Your task to perform on an android device: toggle notification dots Image 0: 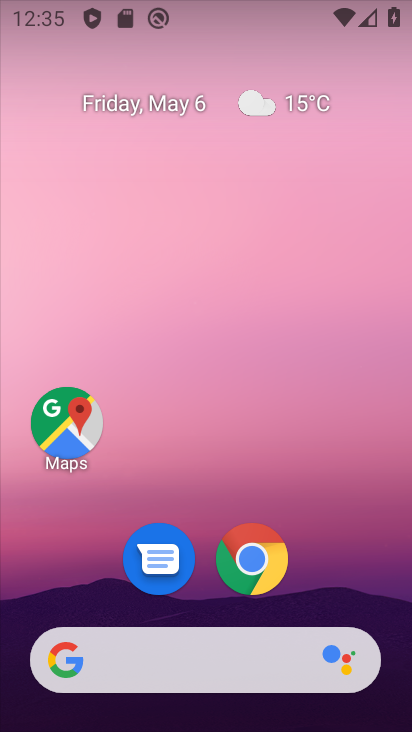
Step 0: drag from (206, 608) to (308, 54)
Your task to perform on an android device: toggle notification dots Image 1: 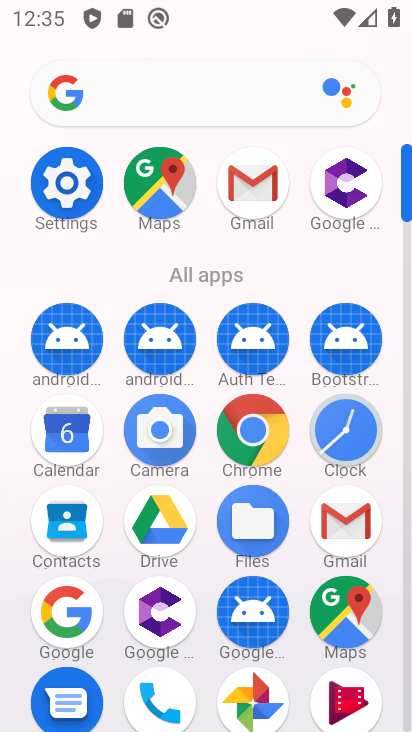
Step 1: click (56, 189)
Your task to perform on an android device: toggle notification dots Image 2: 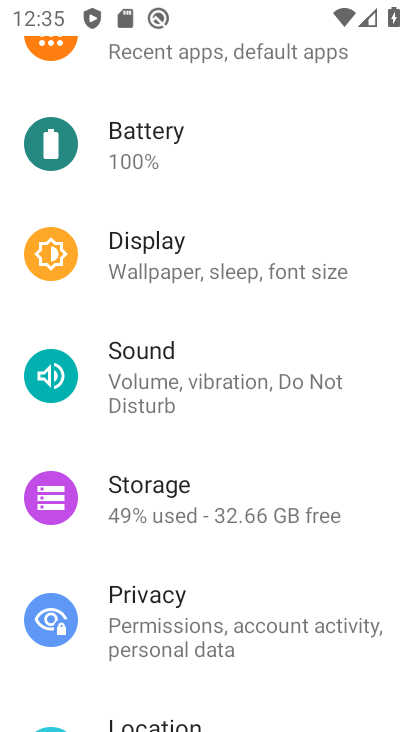
Step 2: drag from (214, 96) to (246, 522)
Your task to perform on an android device: toggle notification dots Image 3: 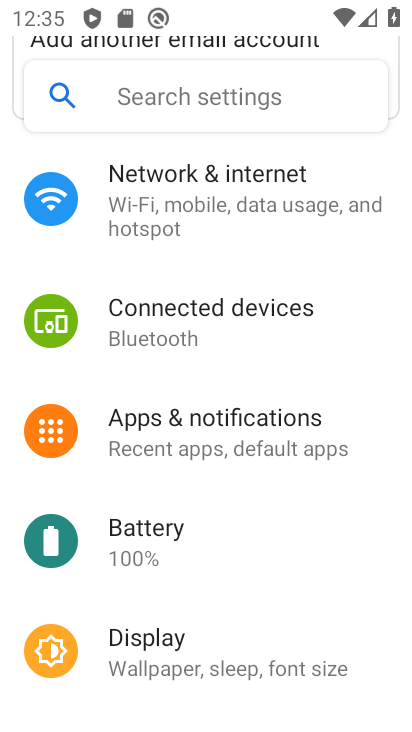
Step 3: drag from (257, 236) to (258, 345)
Your task to perform on an android device: toggle notification dots Image 4: 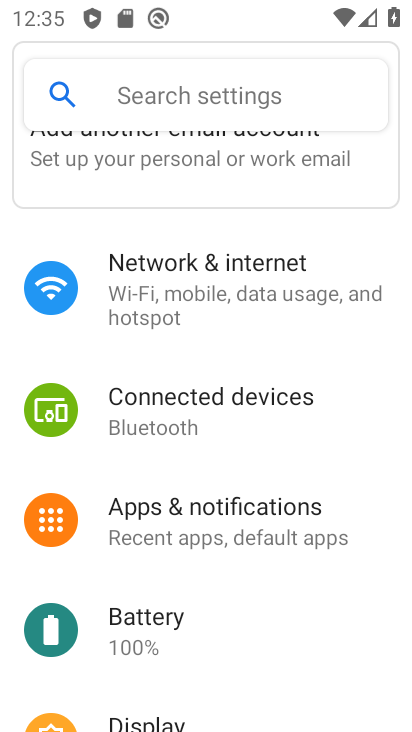
Step 4: click (234, 519)
Your task to perform on an android device: toggle notification dots Image 5: 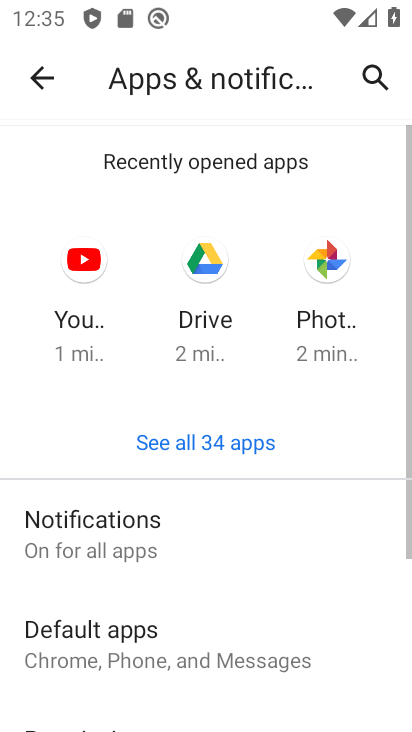
Step 5: drag from (210, 604) to (234, 219)
Your task to perform on an android device: toggle notification dots Image 6: 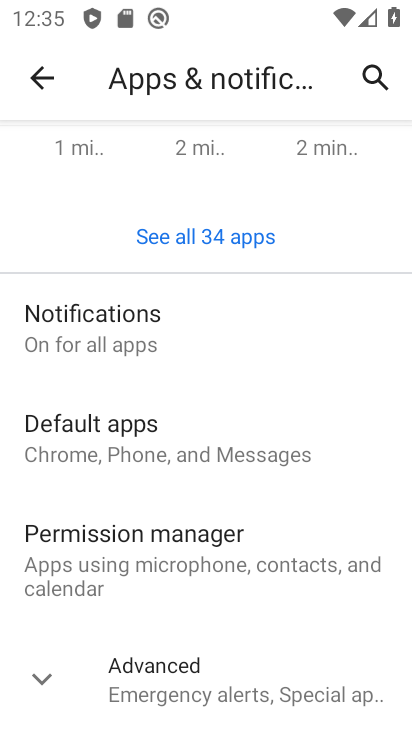
Step 6: click (125, 330)
Your task to perform on an android device: toggle notification dots Image 7: 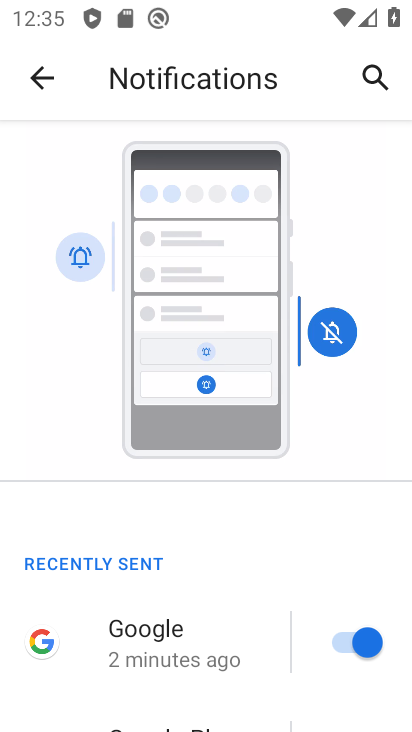
Step 7: drag from (256, 644) to (282, 185)
Your task to perform on an android device: toggle notification dots Image 8: 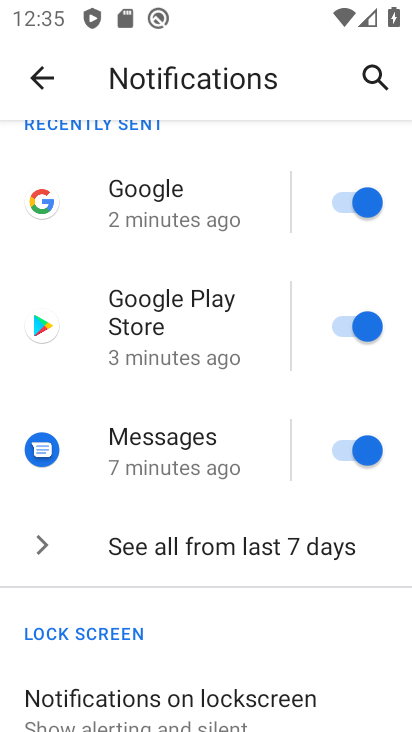
Step 8: drag from (135, 654) to (216, 285)
Your task to perform on an android device: toggle notification dots Image 9: 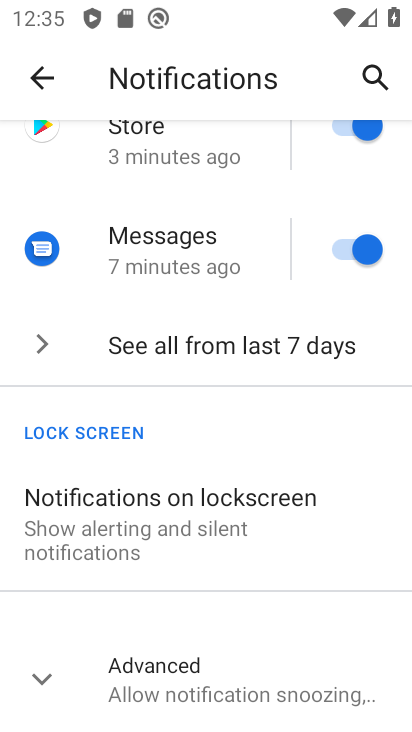
Step 9: click (131, 668)
Your task to perform on an android device: toggle notification dots Image 10: 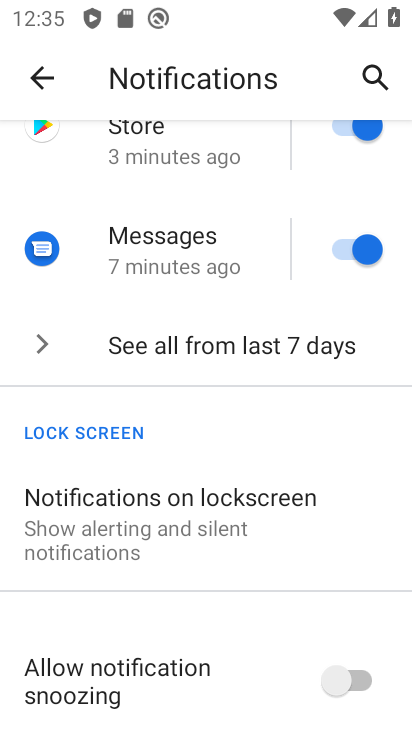
Step 10: drag from (131, 656) to (179, 334)
Your task to perform on an android device: toggle notification dots Image 11: 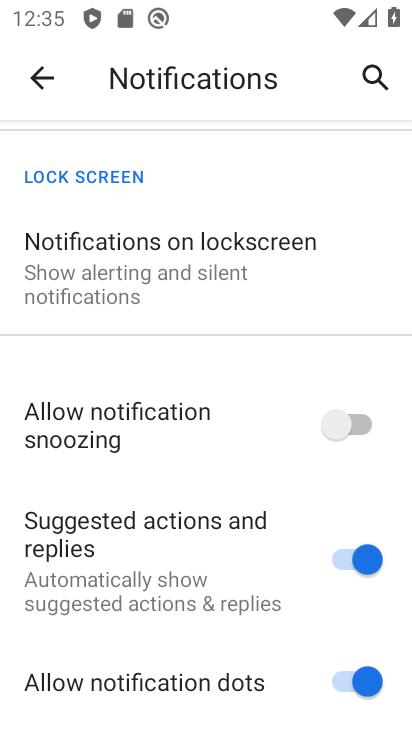
Step 11: click (352, 682)
Your task to perform on an android device: toggle notification dots Image 12: 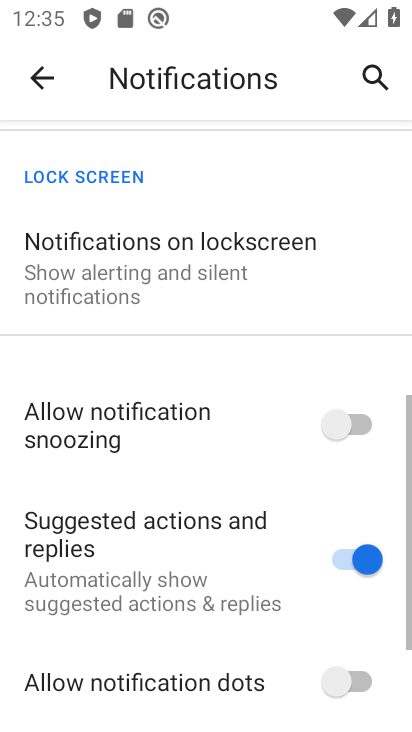
Step 12: task complete